Your task to perform on an android device: toggle notifications settings in the gmail app Image 0: 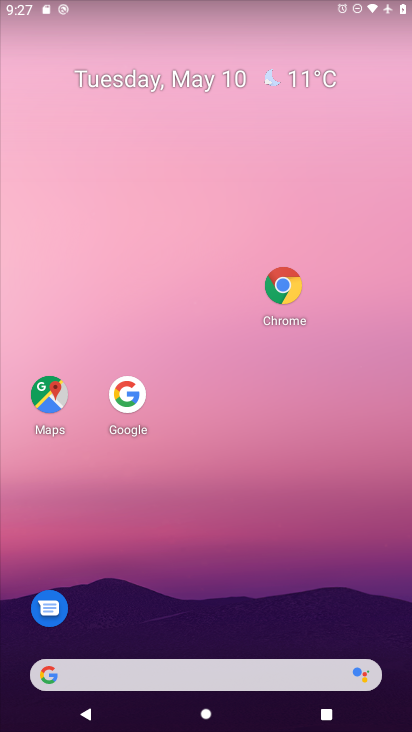
Step 0: drag from (195, 675) to (338, 187)
Your task to perform on an android device: toggle notifications settings in the gmail app Image 1: 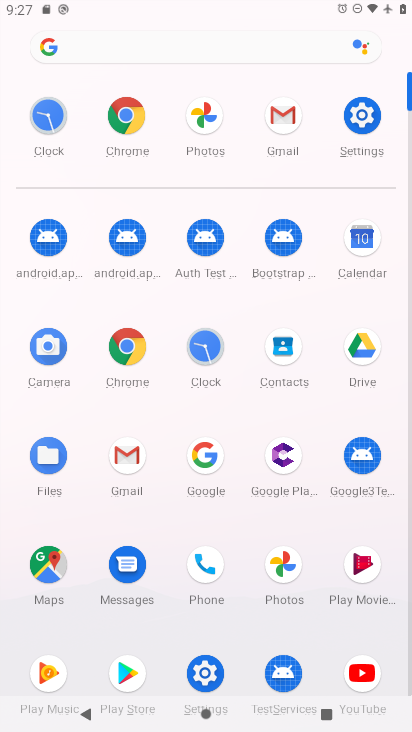
Step 1: click (280, 121)
Your task to perform on an android device: toggle notifications settings in the gmail app Image 2: 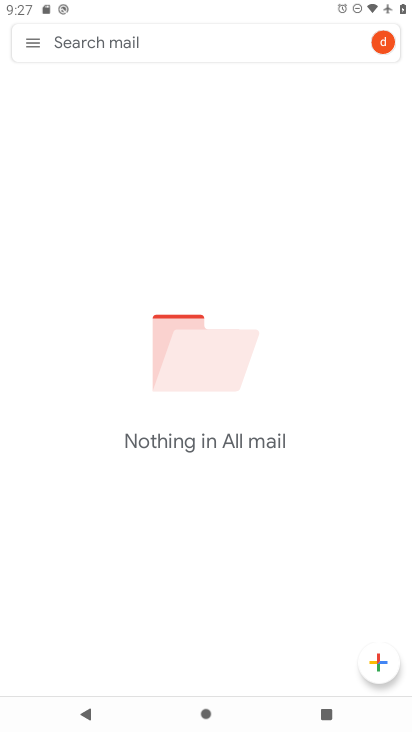
Step 2: click (33, 45)
Your task to perform on an android device: toggle notifications settings in the gmail app Image 3: 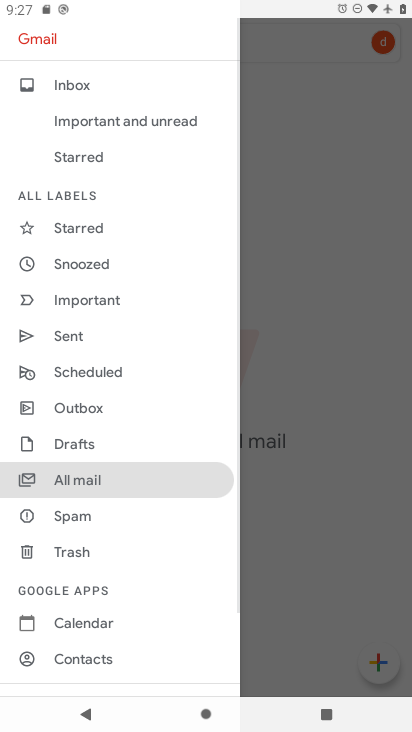
Step 3: drag from (131, 648) to (246, 139)
Your task to perform on an android device: toggle notifications settings in the gmail app Image 4: 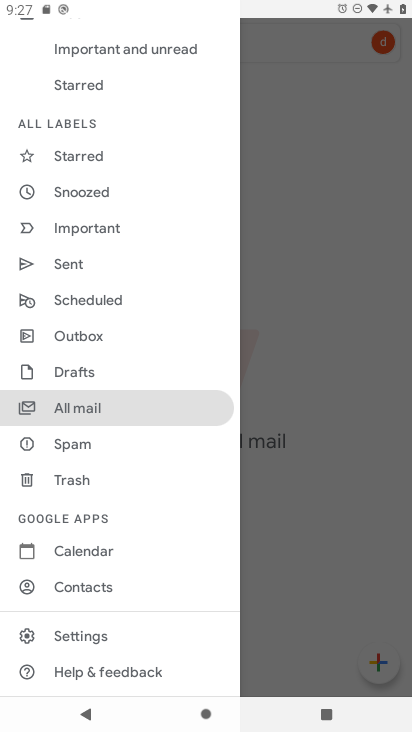
Step 4: click (102, 633)
Your task to perform on an android device: toggle notifications settings in the gmail app Image 5: 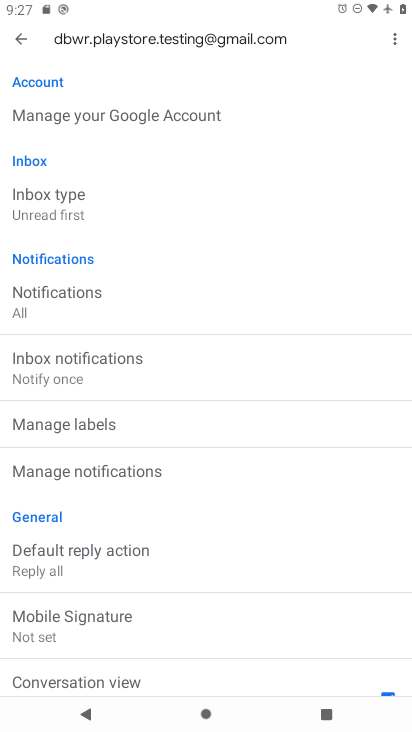
Step 5: click (52, 312)
Your task to perform on an android device: toggle notifications settings in the gmail app Image 6: 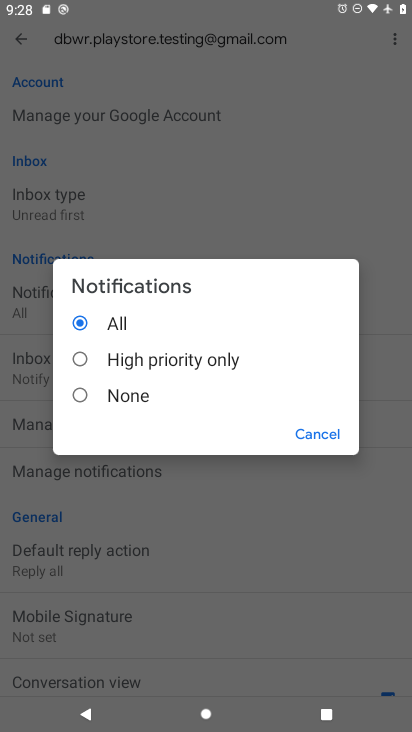
Step 6: click (78, 393)
Your task to perform on an android device: toggle notifications settings in the gmail app Image 7: 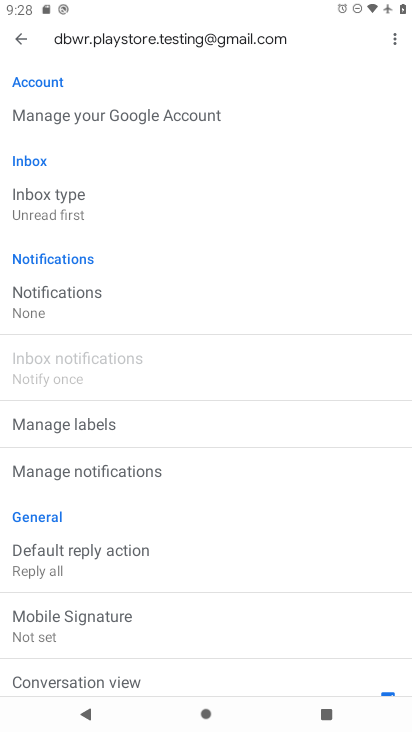
Step 7: task complete